Your task to perform on an android device: set default search engine in the chrome app Image 0: 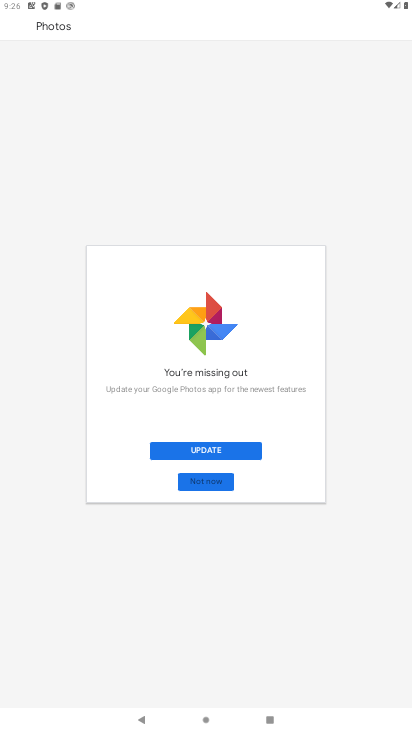
Step 0: press home button
Your task to perform on an android device: set default search engine in the chrome app Image 1: 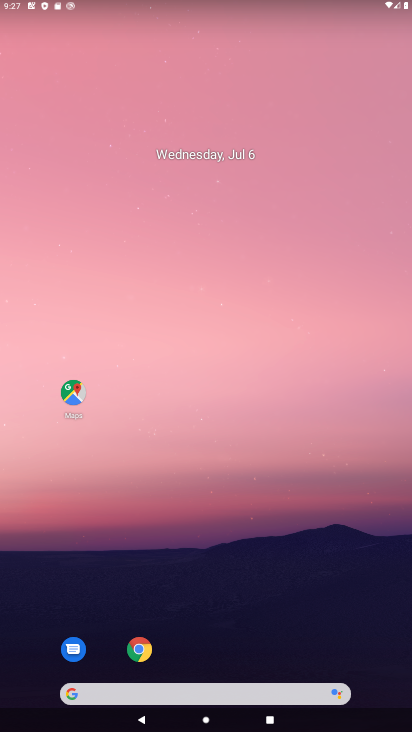
Step 1: click (140, 650)
Your task to perform on an android device: set default search engine in the chrome app Image 2: 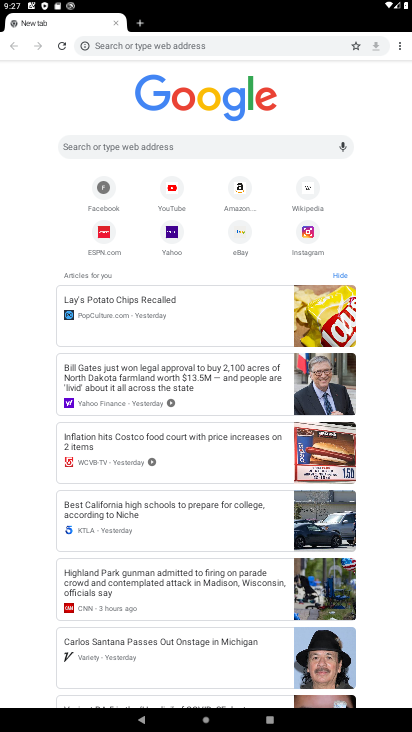
Step 2: click (399, 46)
Your task to perform on an android device: set default search engine in the chrome app Image 3: 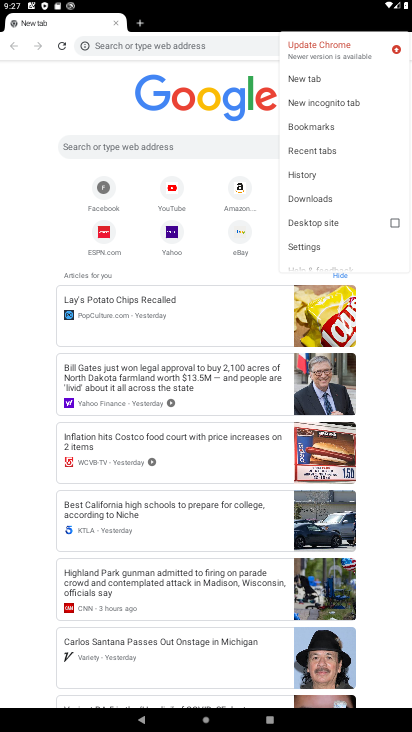
Step 3: click (304, 246)
Your task to perform on an android device: set default search engine in the chrome app Image 4: 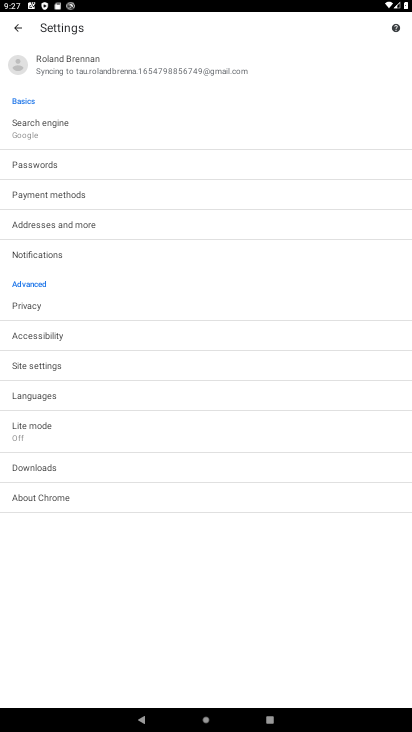
Step 4: click (46, 129)
Your task to perform on an android device: set default search engine in the chrome app Image 5: 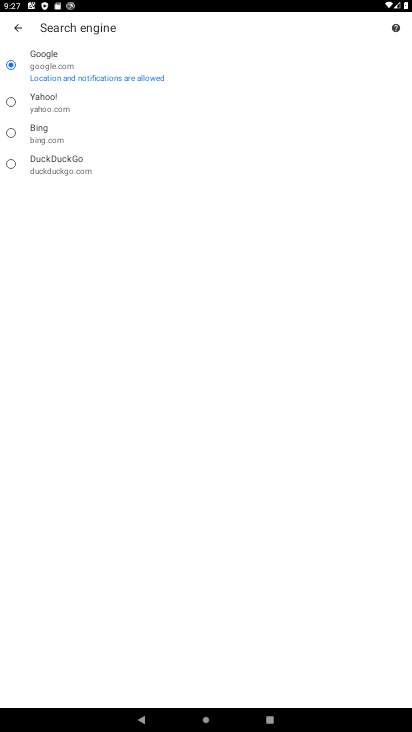
Step 5: click (14, 100)
Your task to perform on an android device: set default search engine in the chrome app Image 6: 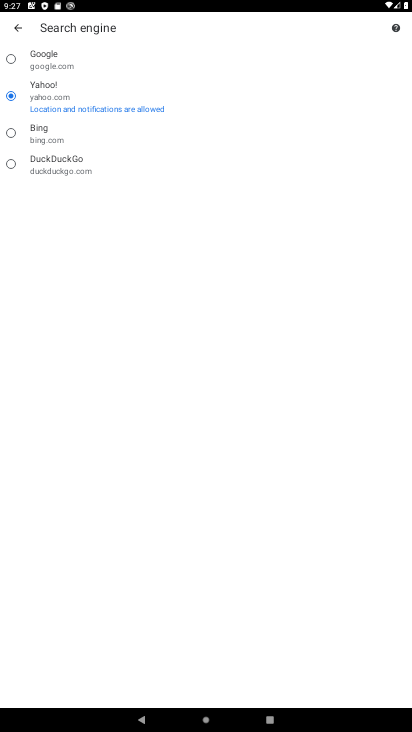
Step 6: task complete